Your task to perform on an android device: toggle sleep mode Image 0: 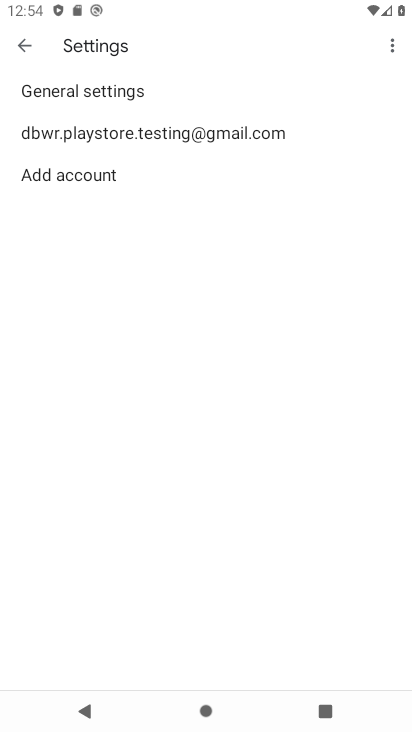
Step 0: press home button
Your task to perform on an android device: toggle sleep mode Image 1: 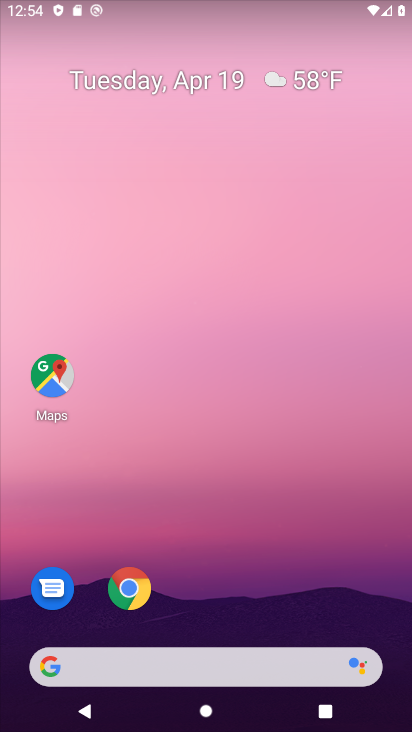
Step 1: drag from (218, 601) to (195, 169)
Your task to perform on an android device: toggle sleep mode Image 2: 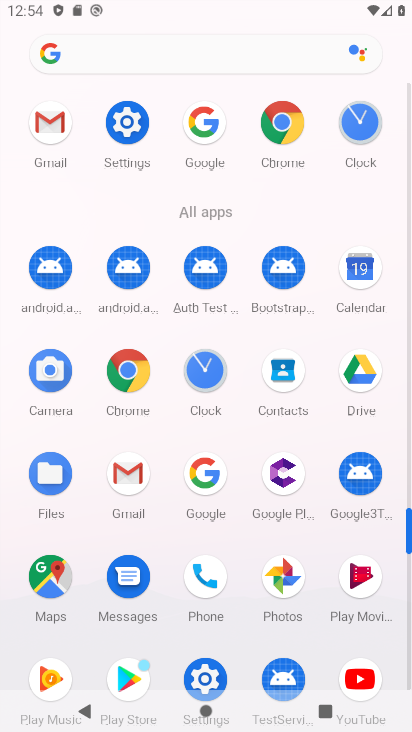
Step 2: click (144, 127)
Your task to perform on an android device: toggle sleep mode Image 3: 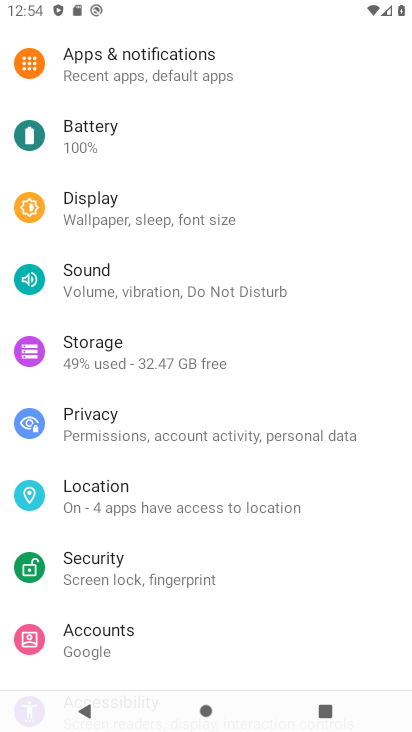
Step 3: click (146, 216)
Your task to perform on an android device: toggle sleep mode Image 4: 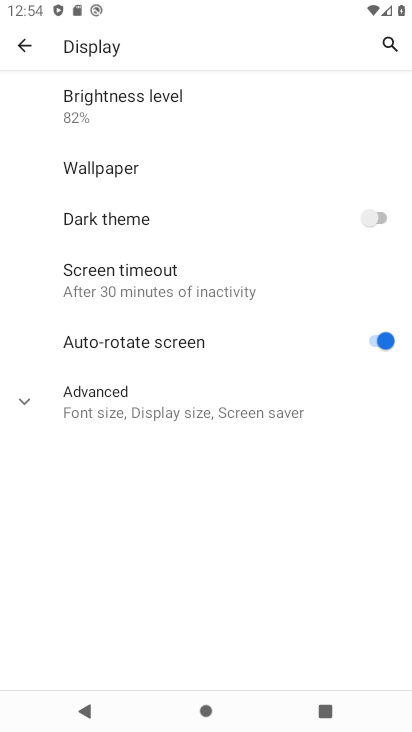
Step 4: click (168, 274)
Your task to perform on an android device: toggle sleep mode Image 5: 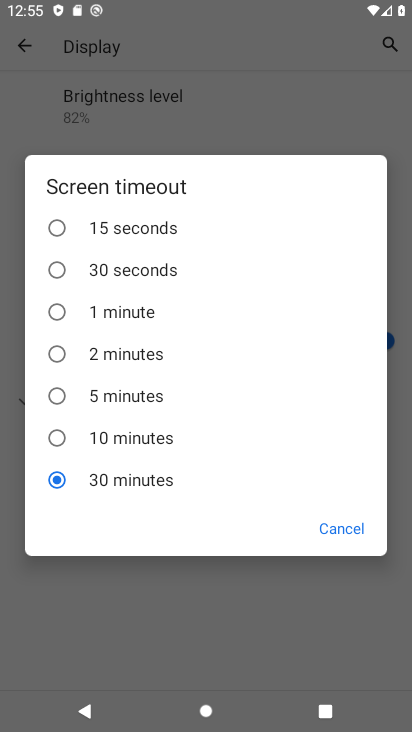
Step 5: click (130, 308)
Your task to perform on an android device: toggle sleep mode Image 6: 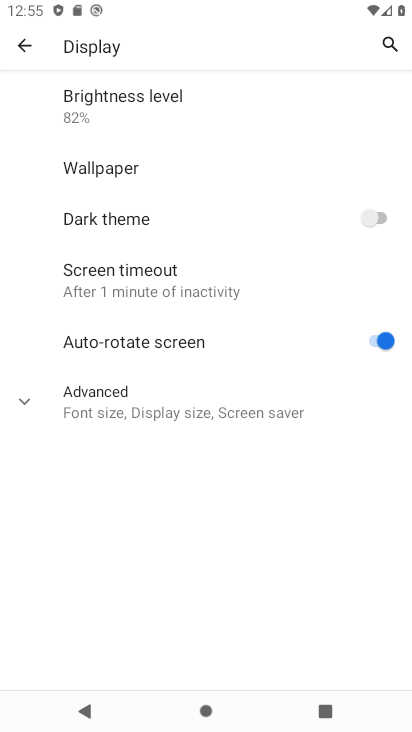
Step 6: task complete